Your task to perform on an android device: turn notification dots off Image 0: 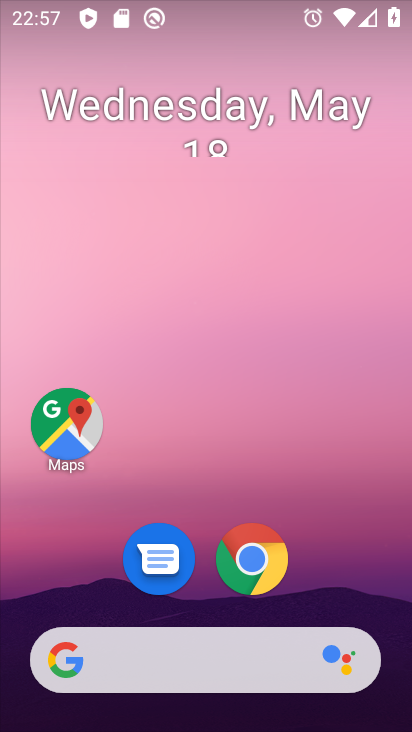
Step 0: drag from (320, 580) to (268, 160)
Your task to perform on an android device: turn notification dots off Image 1: 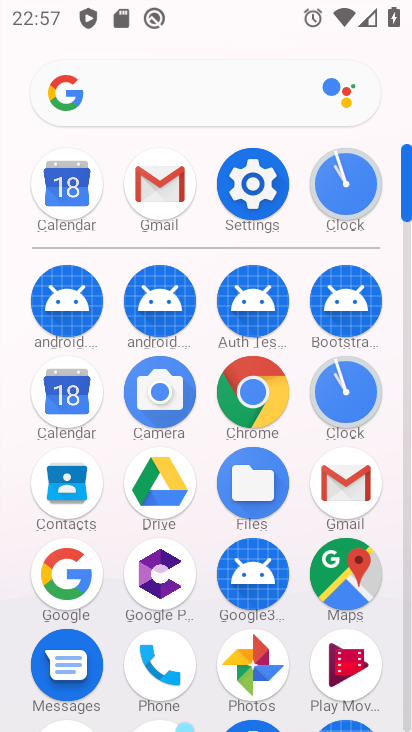
Step 1: click (245, 190)
Your task to perform on an android device: turn notification dots off Image 2: 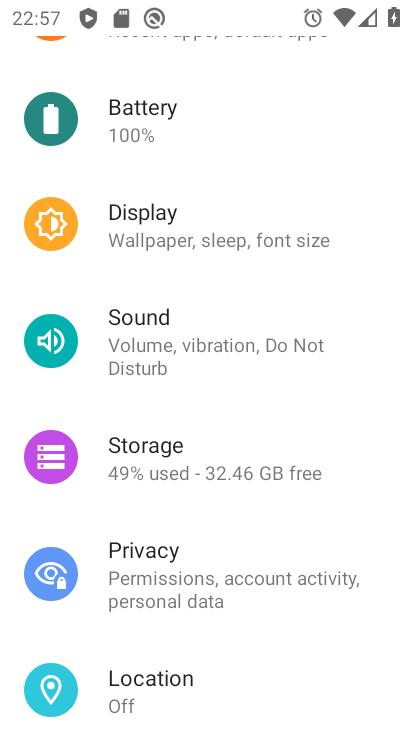
Step 2: drag from (203, 154) to (197, 349)
Your task to perform on an android device: turn notification dots off Image 3: 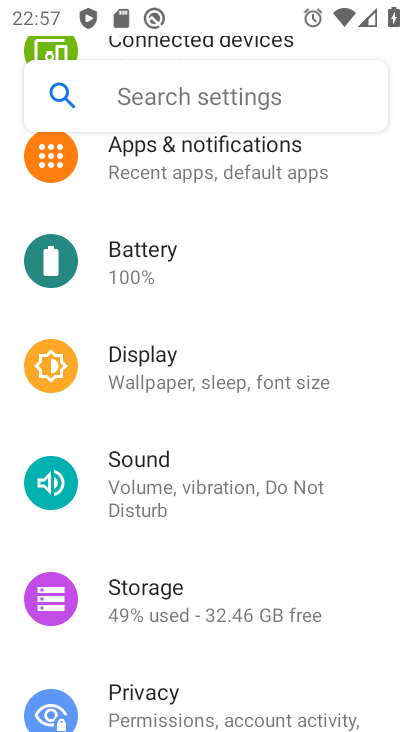
Step 3: click (184, 180)
Your task to perform on an android device: turn notification dots off Image 4: 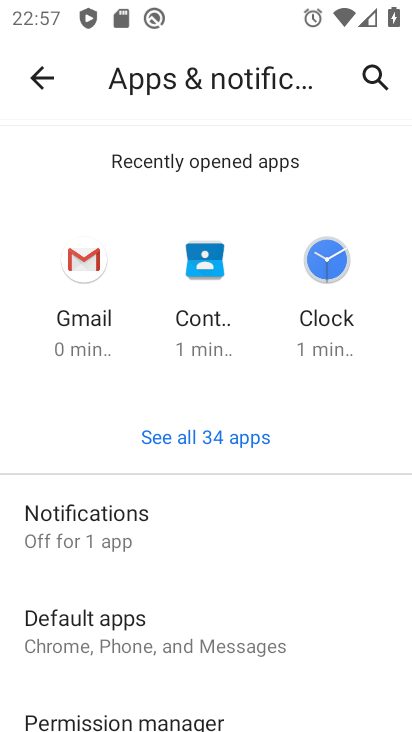
Step 4: click (98, 536)
Your task to perform on an android device: turn notification dots off Image 5: 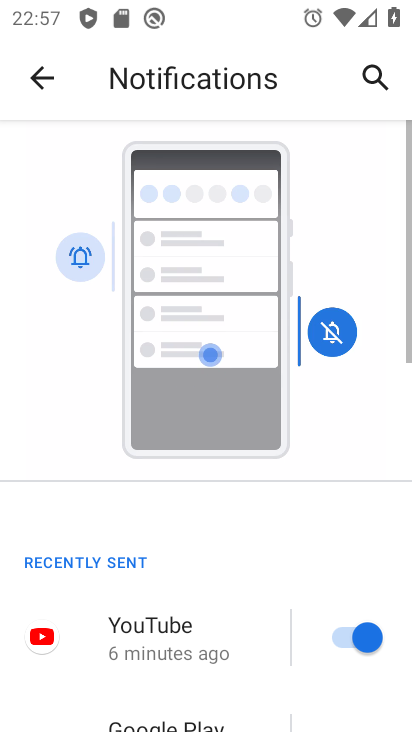
Step 5: drag from (181, 674) to (253, 290)
Your task to perform on an android device: turn notification dots off Image 6: 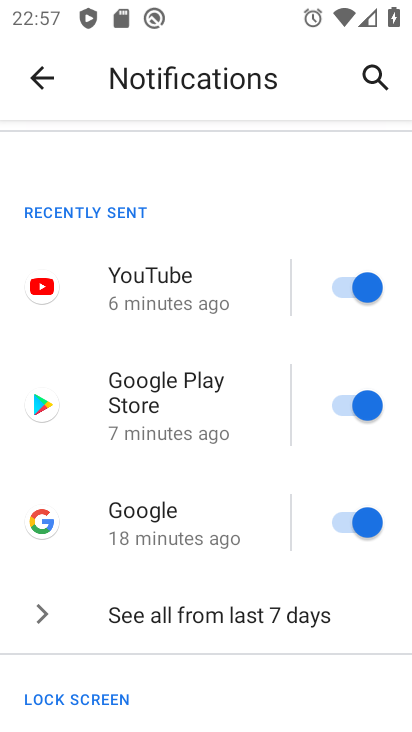
Step 6: drag from (200, 642) to (208, 342)
Your task to perform on an android device: turn notification dots off Image 7: 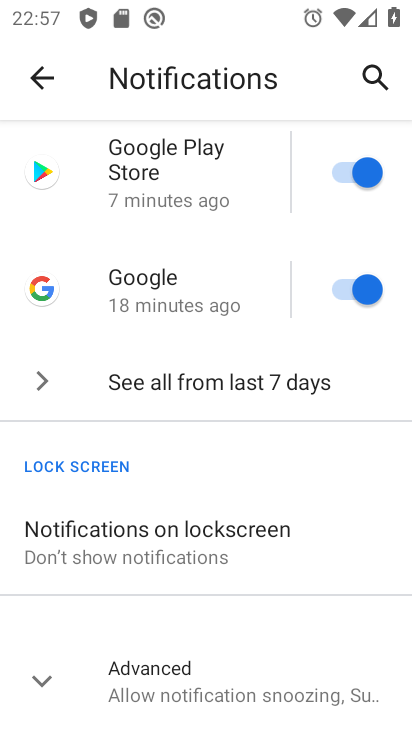
Step 7: click (173, 698)
Your task to perform on an android device: turn notification dots off Image 8: 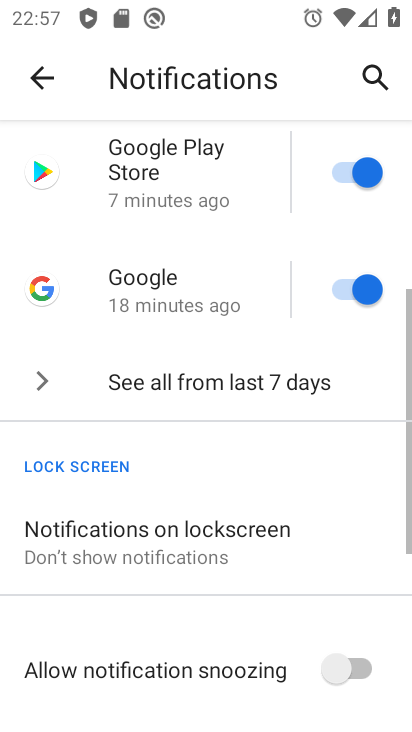
Step 8: drag from (197, 648) to (225, 341)
Your task to perform on an android device: turn notification dots off Image 9: 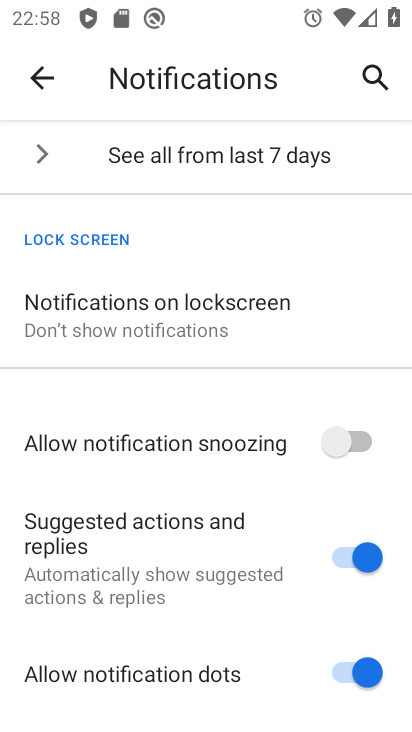
Step 9: click (342, 674)
Your task to perform on an android device: turn notification dots off Image 10: 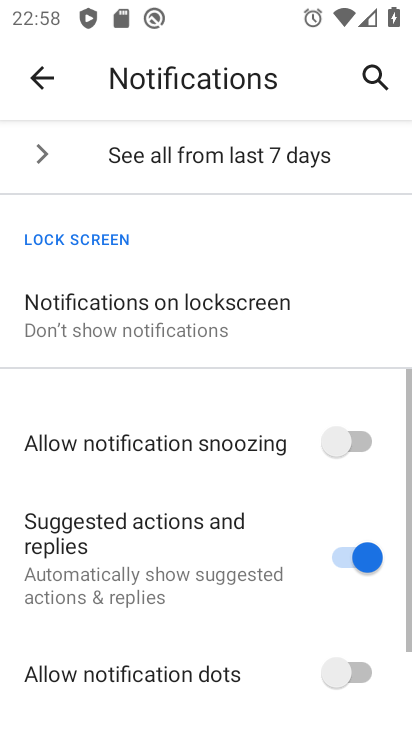
Step 10: task complete